Your task to perform on an android device: Open Chrome and go to settings Image 0: 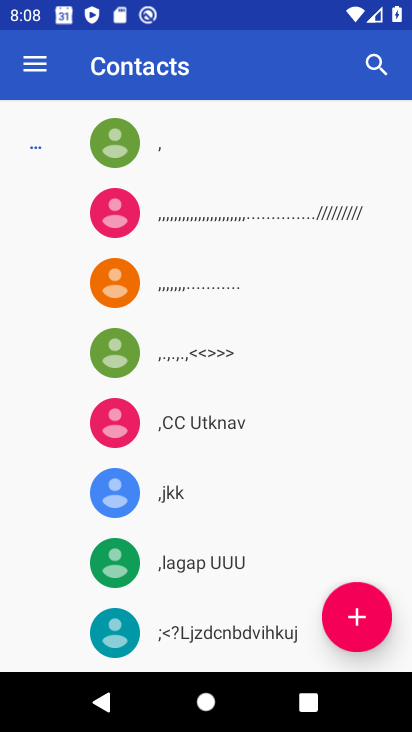
Step 0: press home button
Your task to perform on an android device: Open Chrome and go to settings Image 1: 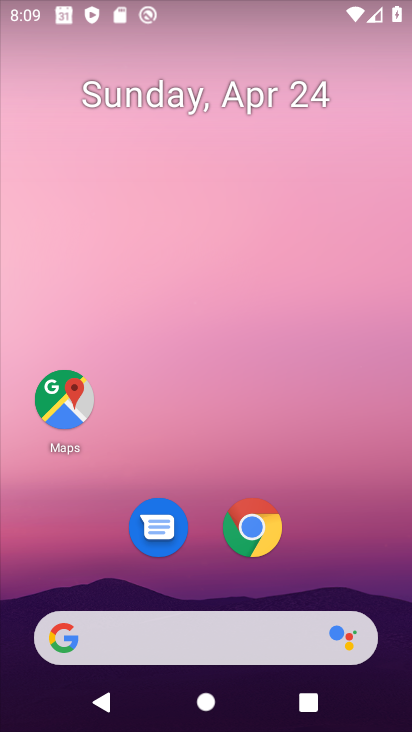
Step 1: click (256, 543)
Your task to perform on an android device: Open Chrome and go to settings Image 2: 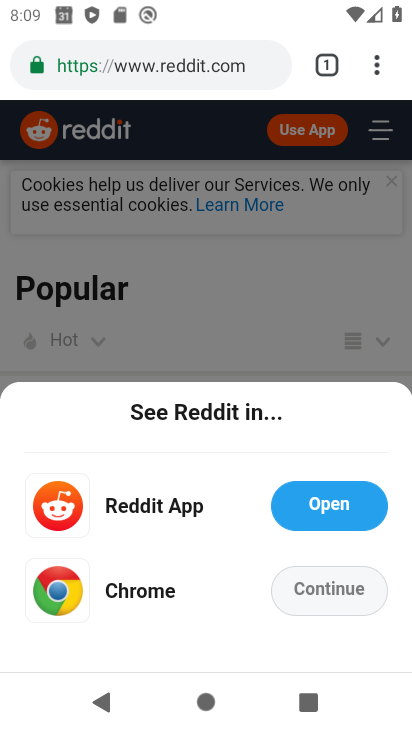
Step 2: click (374, 67)
Your task to perform on an android device: Open Chrome and go to settings Image 3: 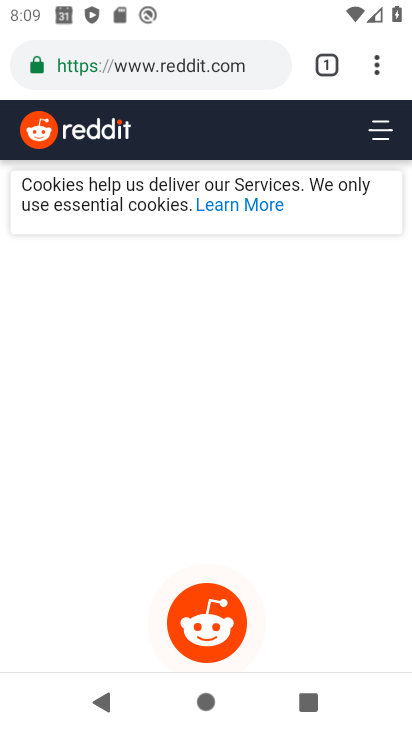
Step 3: click (377, 64)
Your task to perform on an android device: Open Chrome and go to settings Image 4: 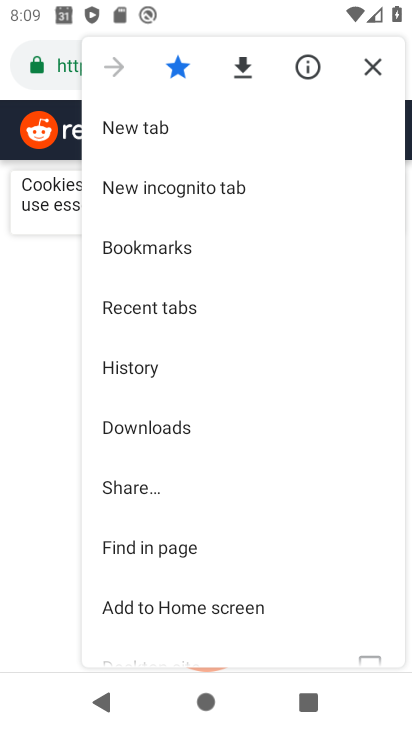
Step 4: drag from (292, 573) to (274, 159)
Your task to perform on an android device: Open Chrome and go to settings Image 5: 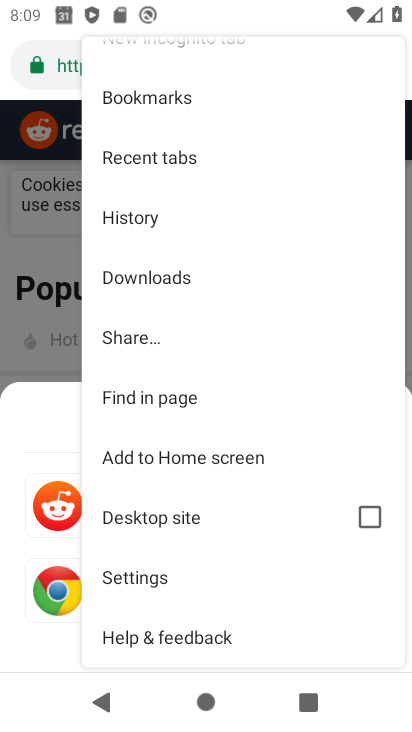
Step 5: click (131, 583)
Your task to perform on an android device: Open Chrome and go to settings Image 6: 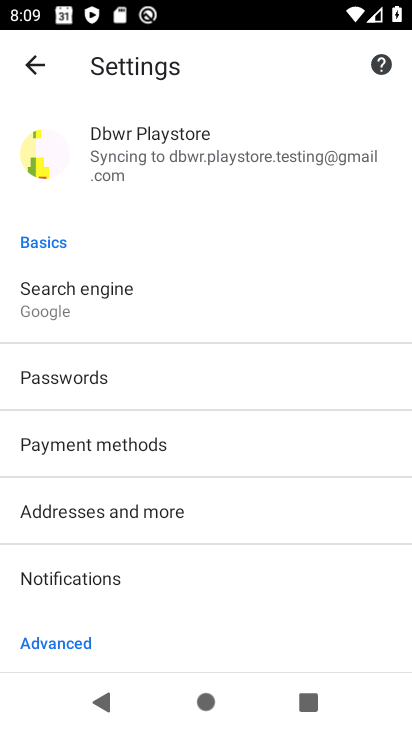
Step 6: task complete